Your task to perform on an android device: Go to calendar. Show me events next week Image 0: 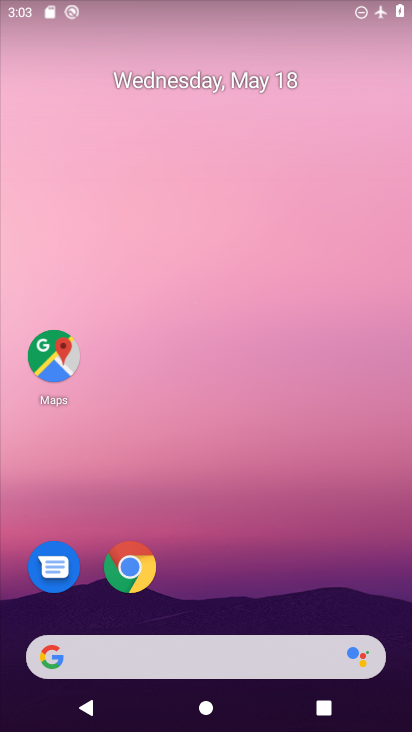
Step 0: drag from (228, 593) to (255, 122)
Your task to perform on an android device: Go to calendar. Show me events next week Image 1: 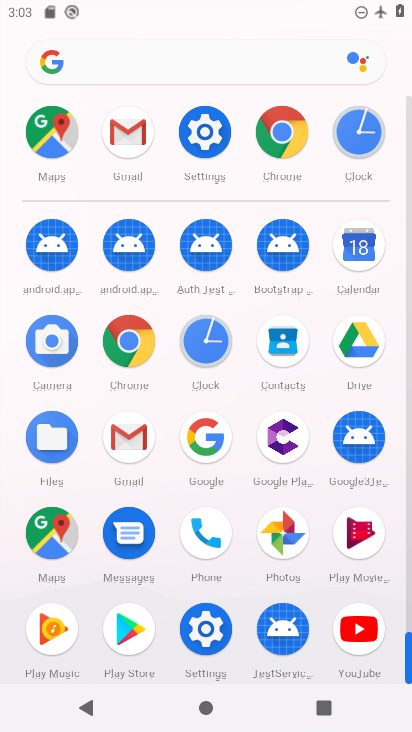
Step 1: click (342, 252)
Your task to perform on an android device: Go to calendar. Show me events next week Image 2: 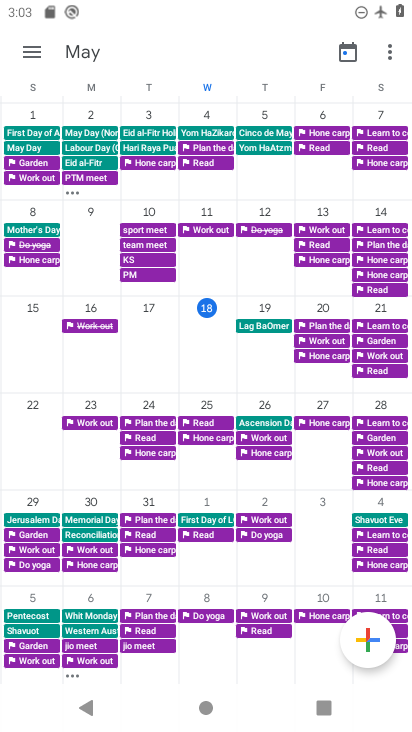
Step 2: task complete